Your task to perform on an android device: Open location settings Image 0: 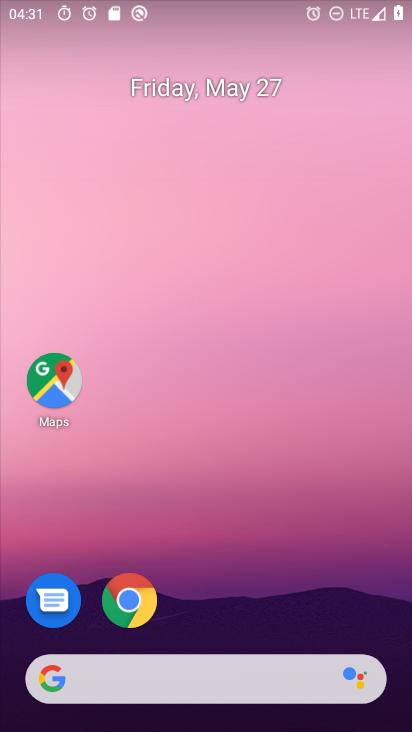
Step 0: drag from (215, 725) to (188, 176)
Your task to perform on an android device: Open location settings Image 1: 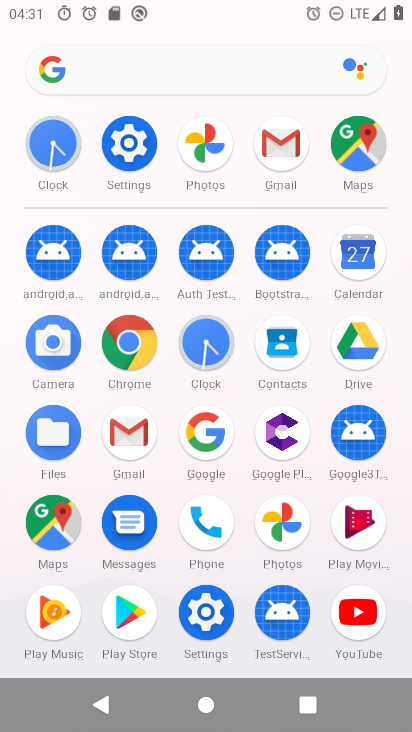
Step 1: click (125, 151)
Your task to perform on an android device: Open location settings Image 2: 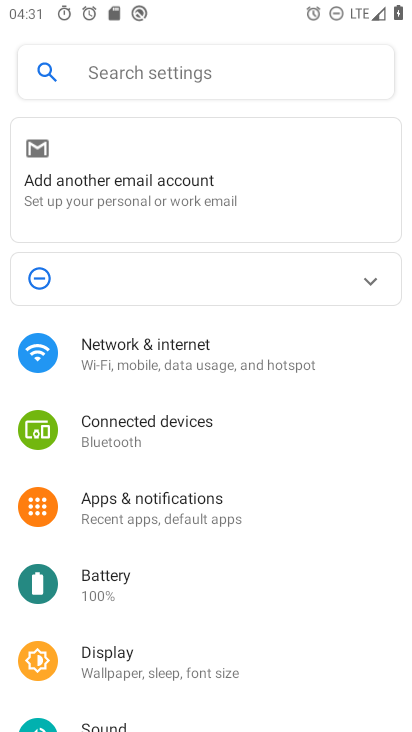
Step 2: drag from (144, 697) to (161, 282)
Your task to perform on an android device: Open location settings Image 3: 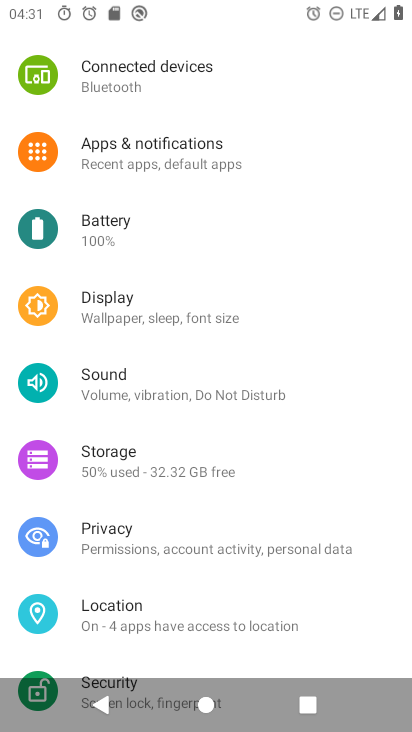
Step 3: click (128, 608)
Your task to perform on an android device: Open location settings Image 4: 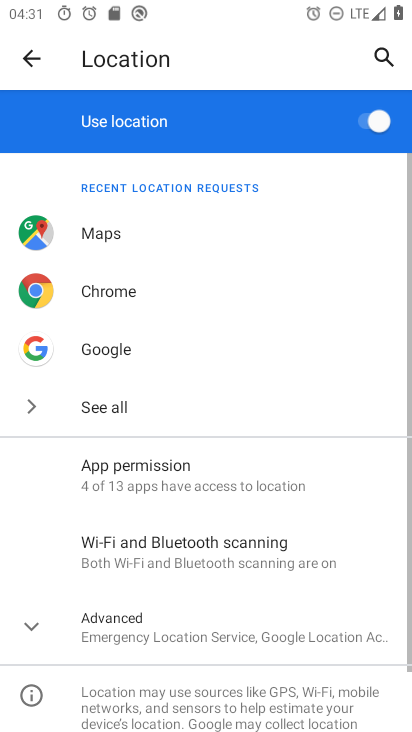
Step 4: task complete